Your task to perform on an android device: Go to Reddit.com Image 0: 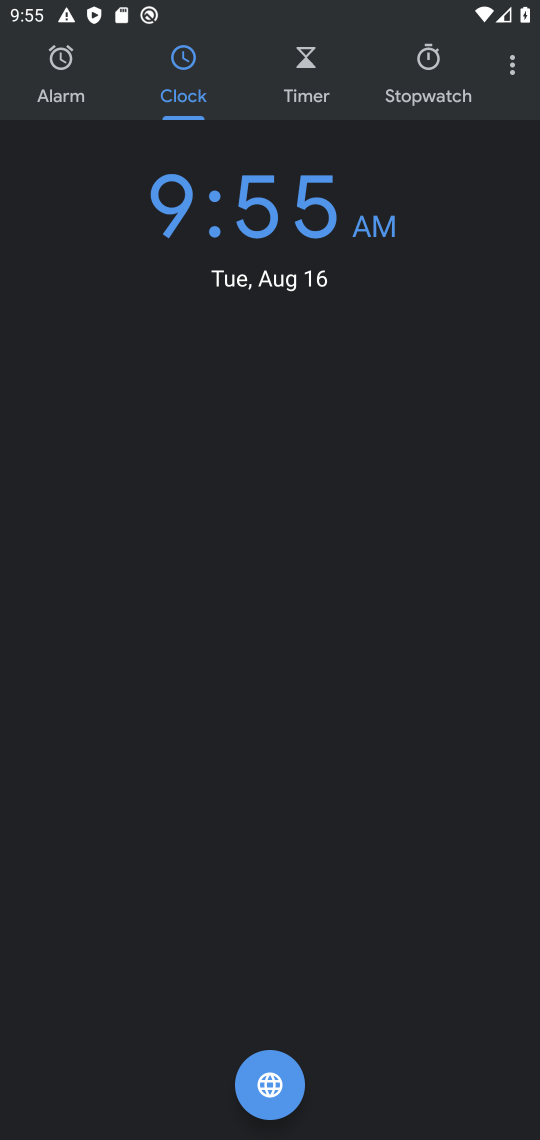
Step 0: press home button
Your task to perform on an android device: Go to Reddit.com Image 1: 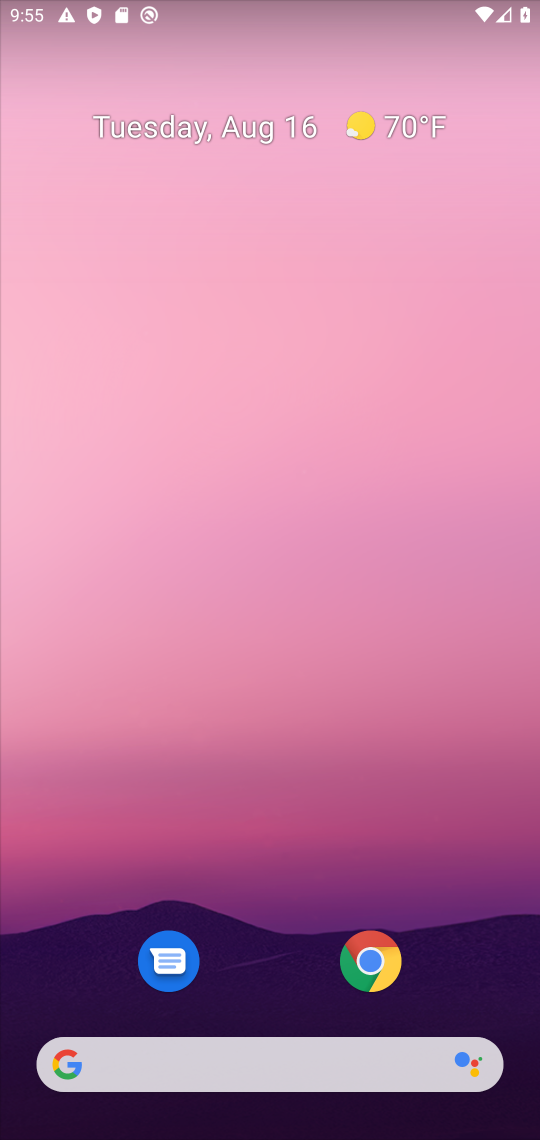
Step 1: drag from (284, 737) to (281, 677)
Your task to perform on an android device: Go to Reddit.com Image 2: 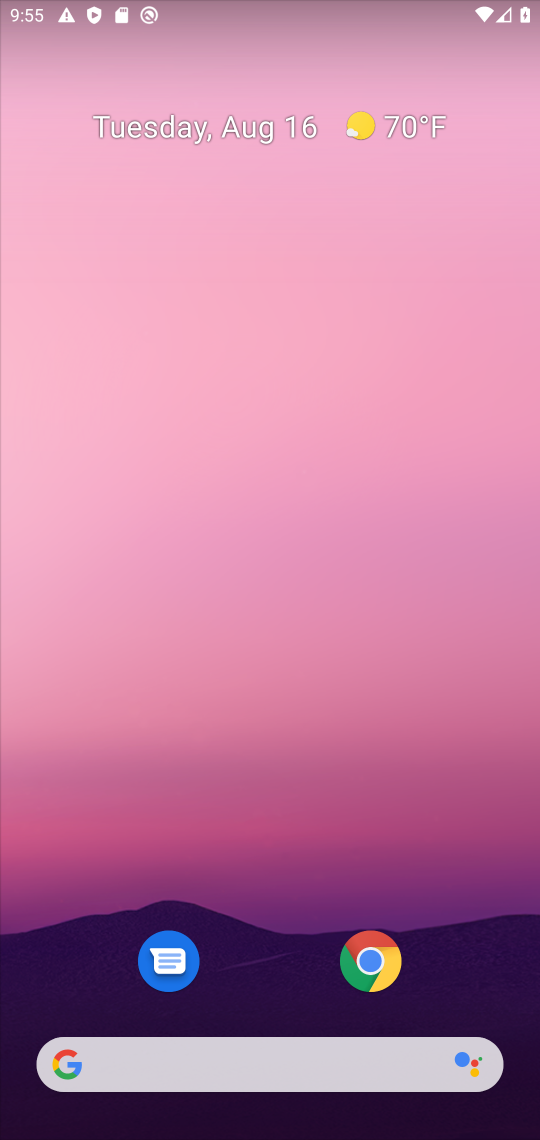
Step 2: click (280, 1066)
Your task to perform on an android device: Go to Reddit.com Image 3: 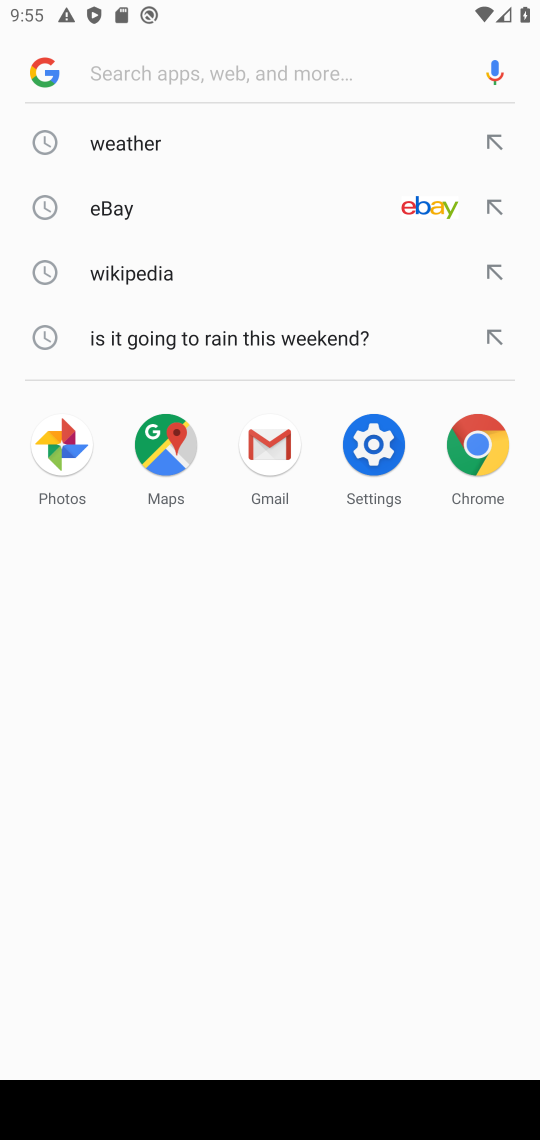
Step 3: click (338, 86)
Your task to perform on an android device: Go to Reddit.com Image 4: 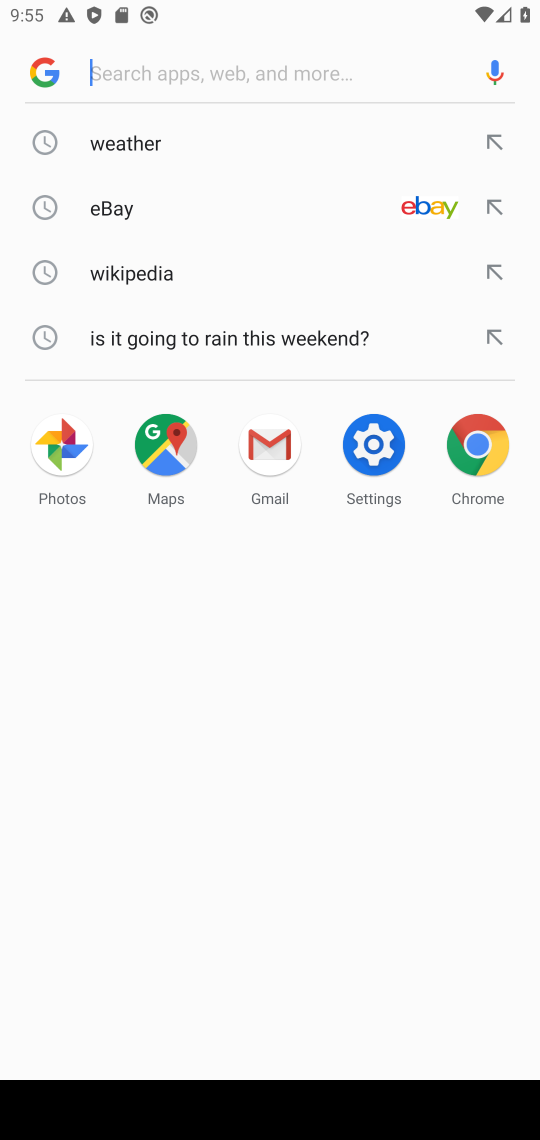
Step 4: press enter
Your task to perform on an android device: Go to Reddit.com Image 5: 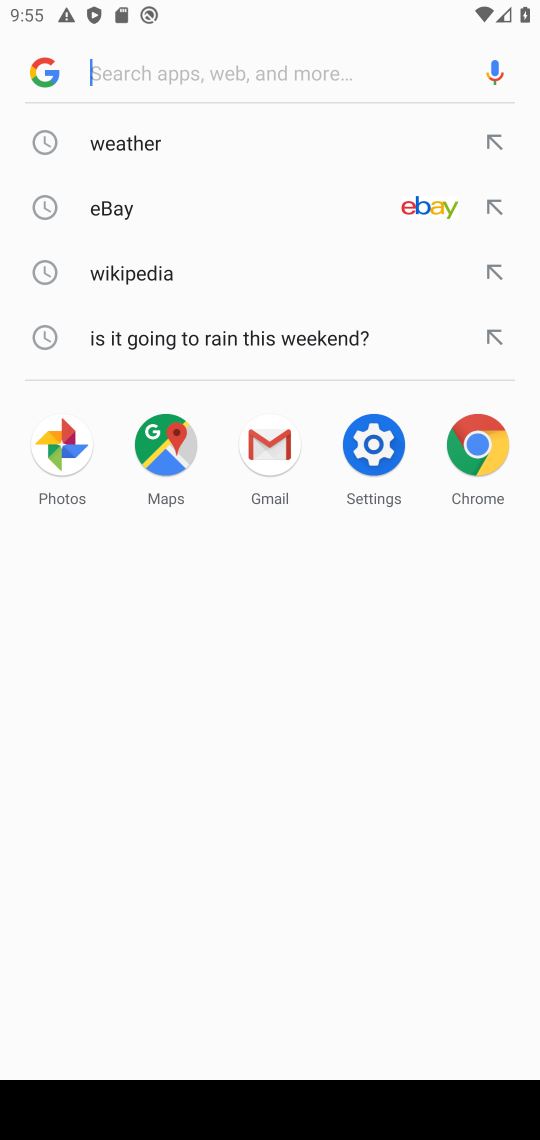
Step 5: type "Reddit.com"
Your task to perform on an android device: Go to Reddit.com Image 6: 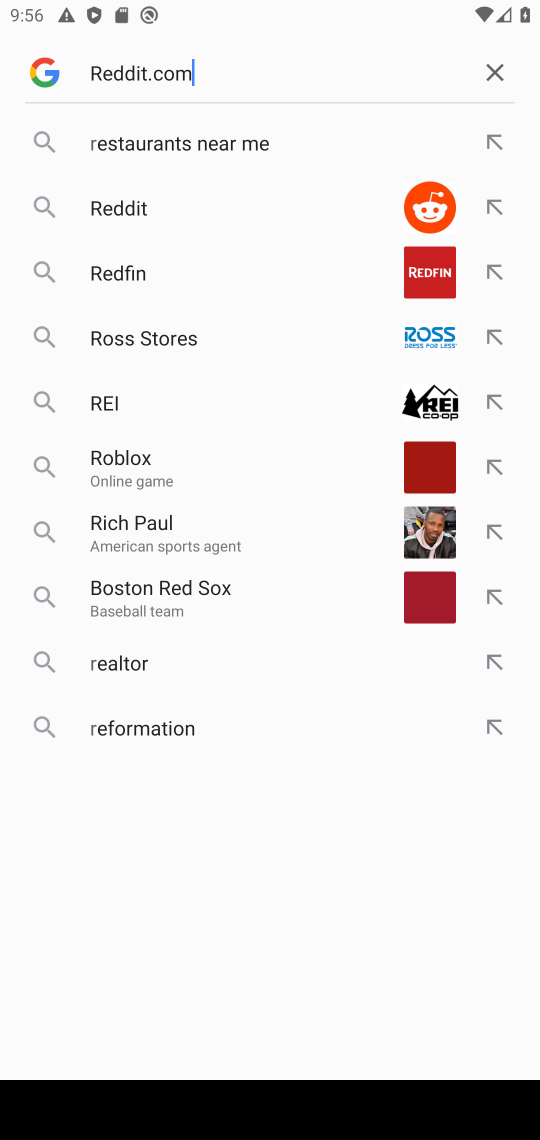
Step 6: task complete